Your task to perform on an android device: turn pop-ups on in chrome Image 0: 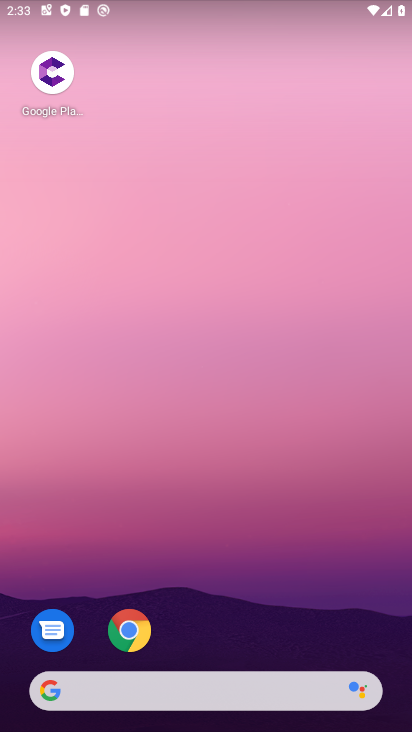
Step 0: click (129, 628)
Your task to perform on an android device: turn pop-ups on in chrome Image 1: 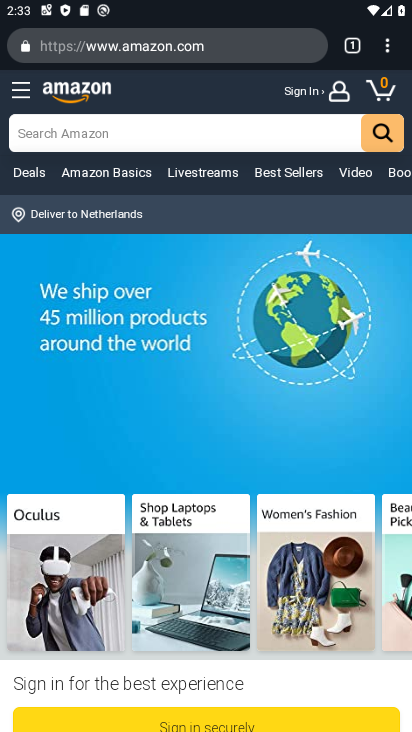
Step 1: click (390, 49)
Your task to perform on an android device: turn pop-ups on in chrome Image 2: 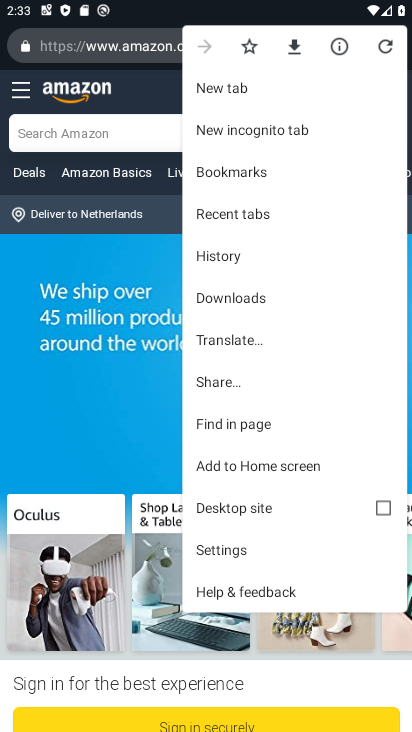
Step 2: click (232, 550)
Your task to perform on an android device: turn pop-ups on in chrome Image 3: 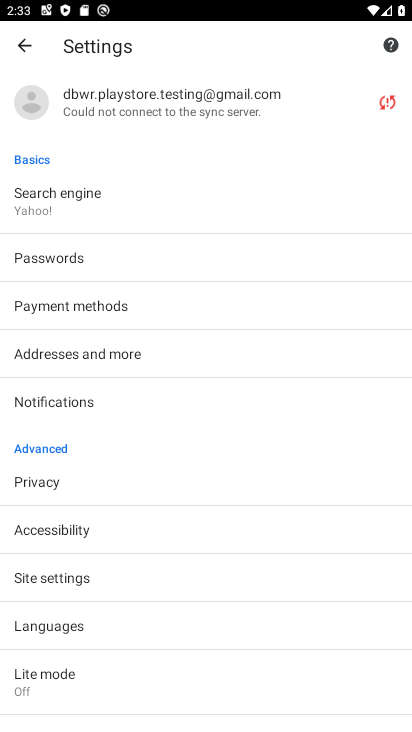
Step 3: click (76, 575)
Your task to perform on an android device: turn pop-ups on in chrome Image 4: 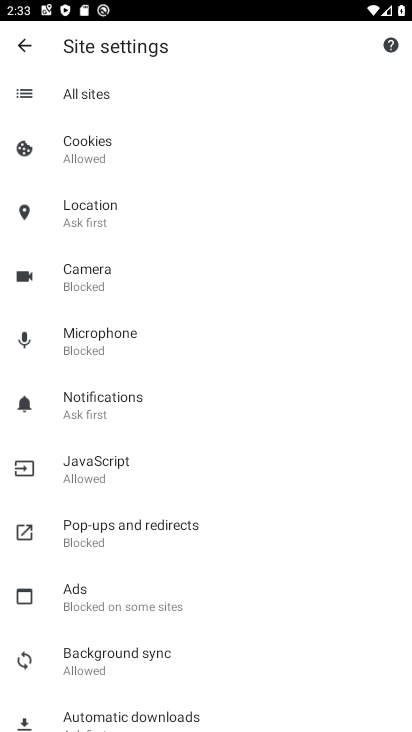
Step 4: click (136, 518)
Your task to perform on an android device: turn pop-ups on in chrome Image 5: 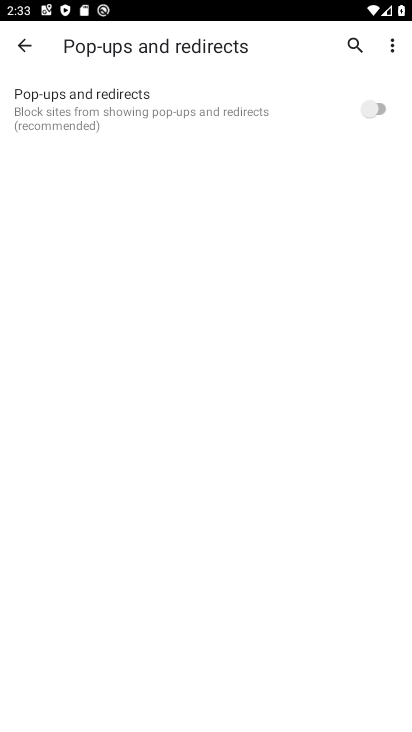
Step 5: click (376, 105)
Your task to perform on an android device: turn pop-ups on in chrome Image 6: 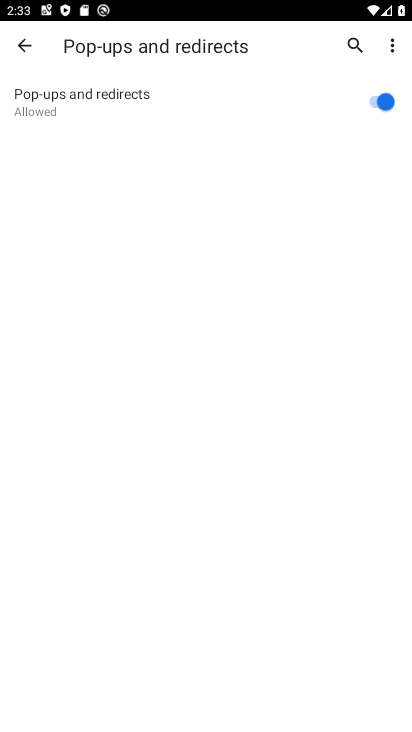
Step 6: task complete